Your task to perform on an android device: How do I get to the nearest McDonalds? Image 0: 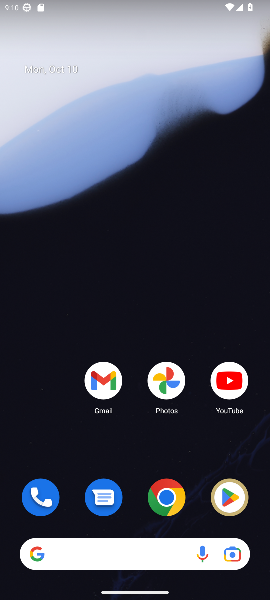
Step 0: drag from (87, 485) to (92, 181)
Your task to perform on an android device: How do I get to the nearest McDonalds? Image 1: 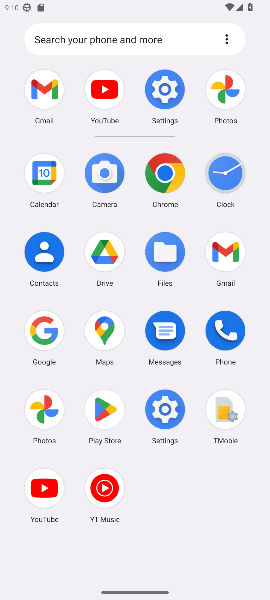
Step 1: click (39, 334)
Your task to perform on an android device: How do I get to the nearest McDonalds? Image 2: 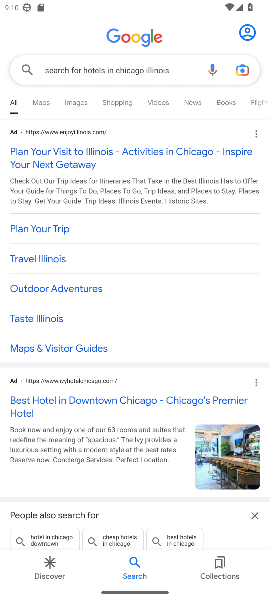
Step 2: click (118, 66)
Your task to perform on an android device: How do I get to the nearest McDonalds? Image 3: 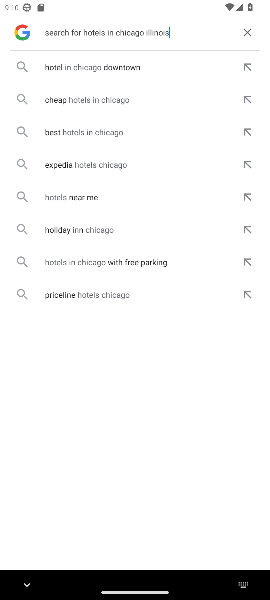
Step 3: click (239, 29)
Your task to perform on an android device: How do I get to the nearest McDonalds? Image 4: 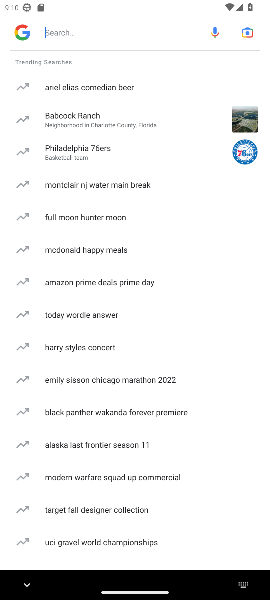
Step 4: click (171, 27)
Your task to perform on an android device: How do I get to the nearest McDonalds? Image 5: 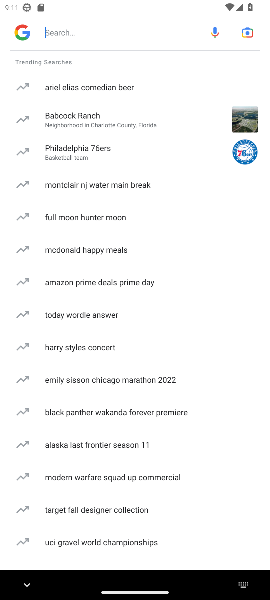
Step 5: click (110, 35)
Your task to perform on an android device: How do I get to the nearest McDonalds? Image 6: 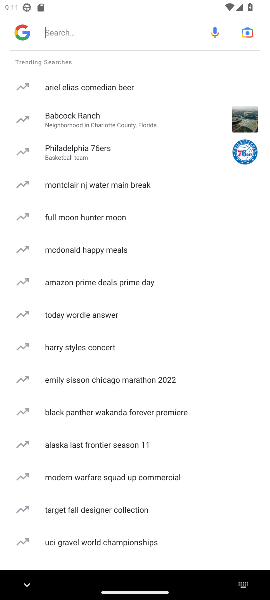
Step 6: type "How do I get to the nearest McDonalds? "
Your task to perform on an android device: How do I get to the nearest McDonalds? Image 7: 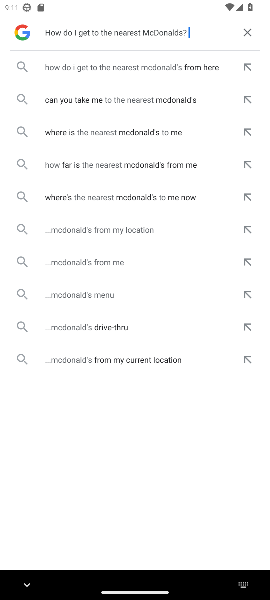
Step 7: click (94, 60)
Your task to perform on an android device: How do I get to the nearest McDonalds? Image 8: 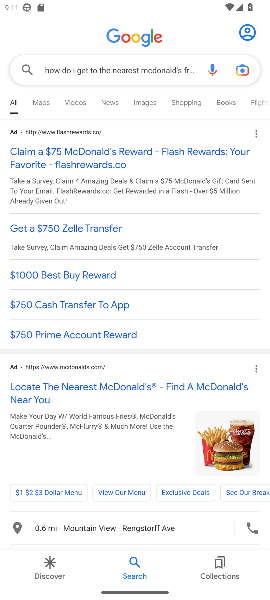
Step 8: click (65, 144)
Your task to perform on an android device: How do I get to the nearest McDonalds? Image 9: 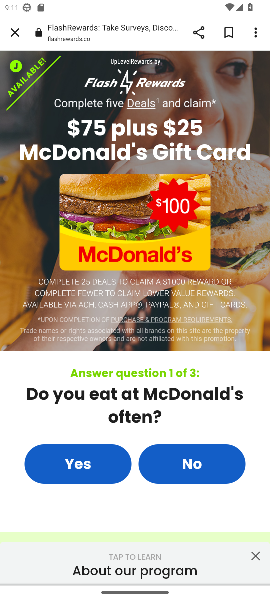
Step 9: click (259, 558)
Your task to perform on an android device: How do I get to the nearest McDonalds? Image 10: 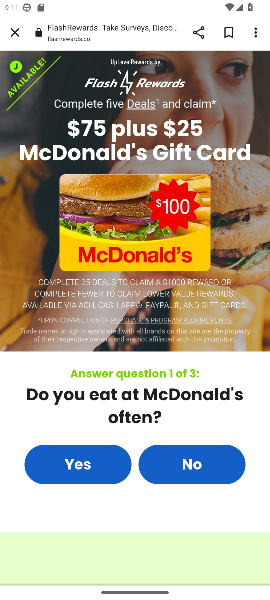
Step 10: task complete